Your task to perform on an android device: see sites visited before in the chrome app Image 0: 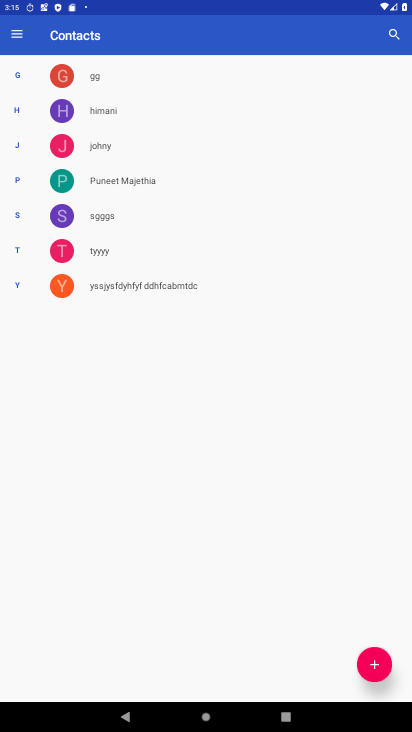
Step 0: press home button
Your task to perform on an android device: see sites visited before in the chrome app Image 1: 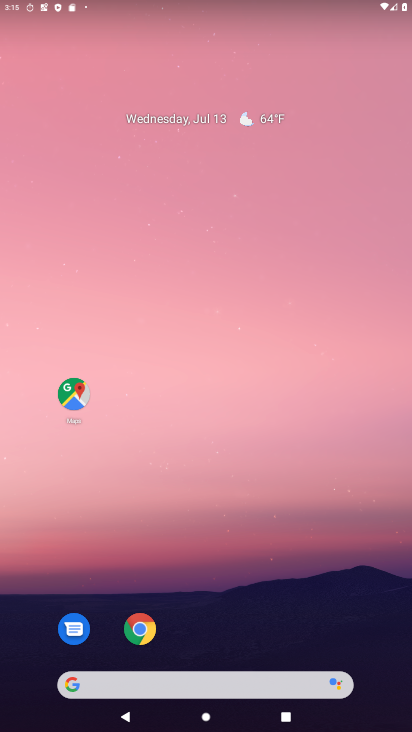
Step 1: drag from (116, 694) to (247, 25)
Your task to perform on an android device: see sites visited before in the chrome app Image 2: 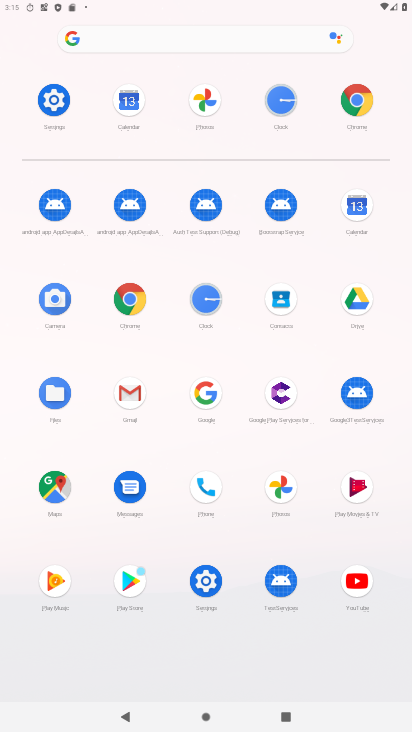
Step 2: click (366, 103)
Your task to perform on an android device: see sites visited before in the chrome app Image 3: 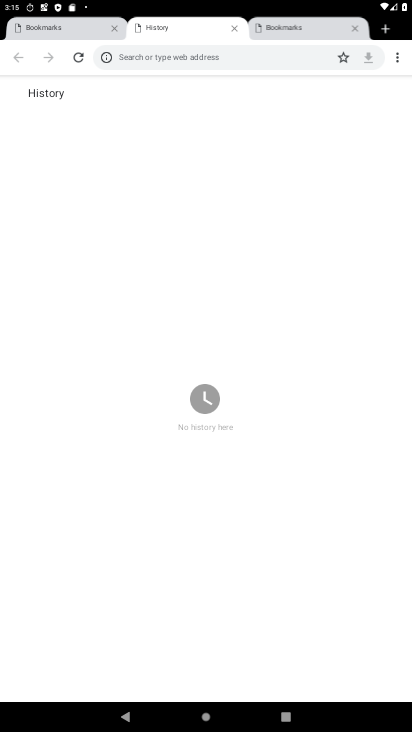
Step 3: task complete